Your task to perform on an android device: install app "Microsoft Authenticator" Image 0: 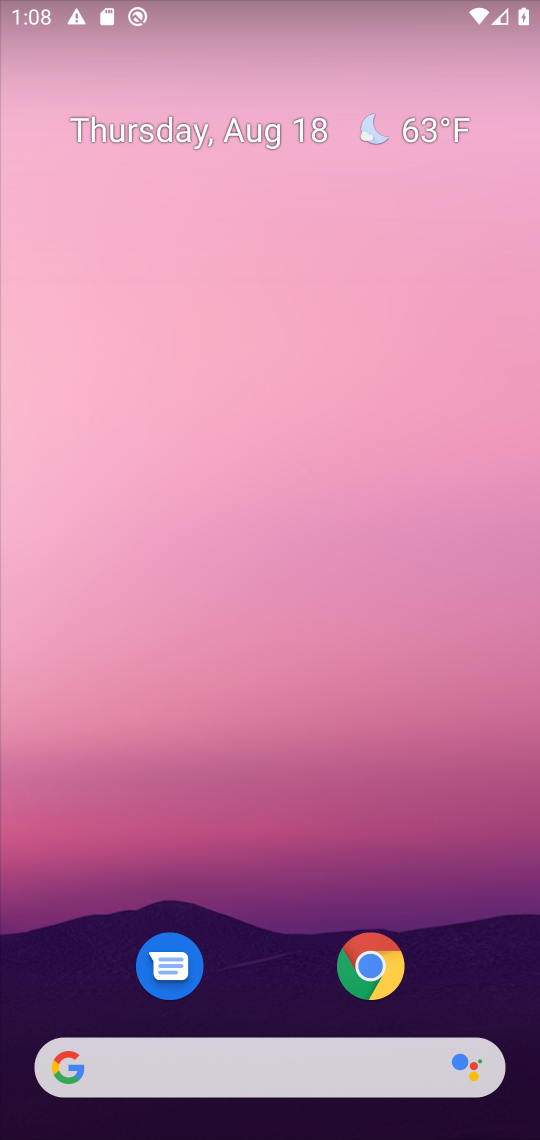
Step 0: drag from (265, 974) to (345, 474)
Your task to perform on an android device: install app "Microsoft Authenticator" Image 1: 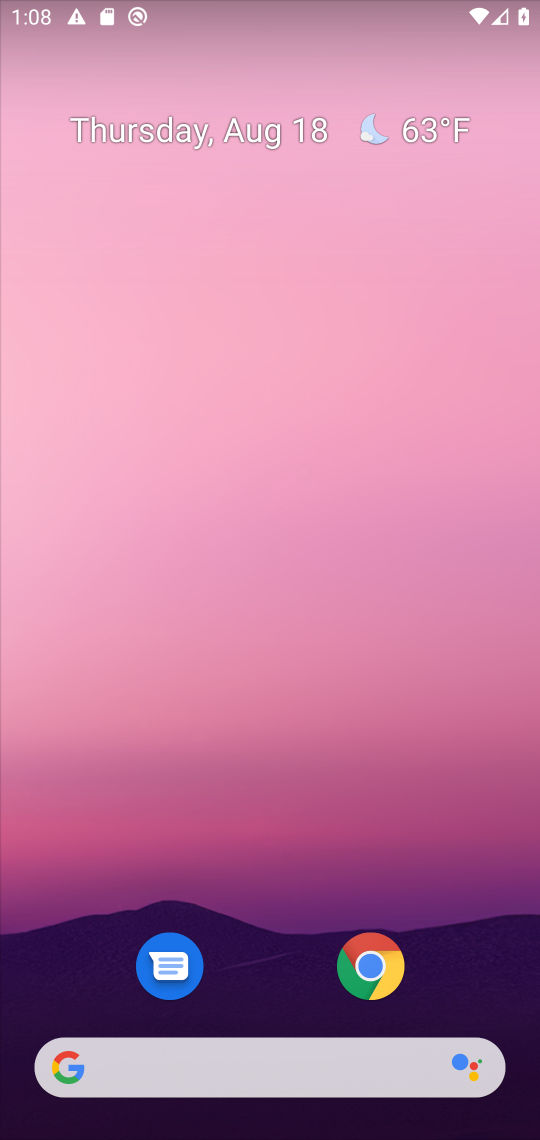
Step 1: drag from (294, 992) to (324, 121)
Your task to perform on an android device: install app "Microsoft Authenticator" Image 2: 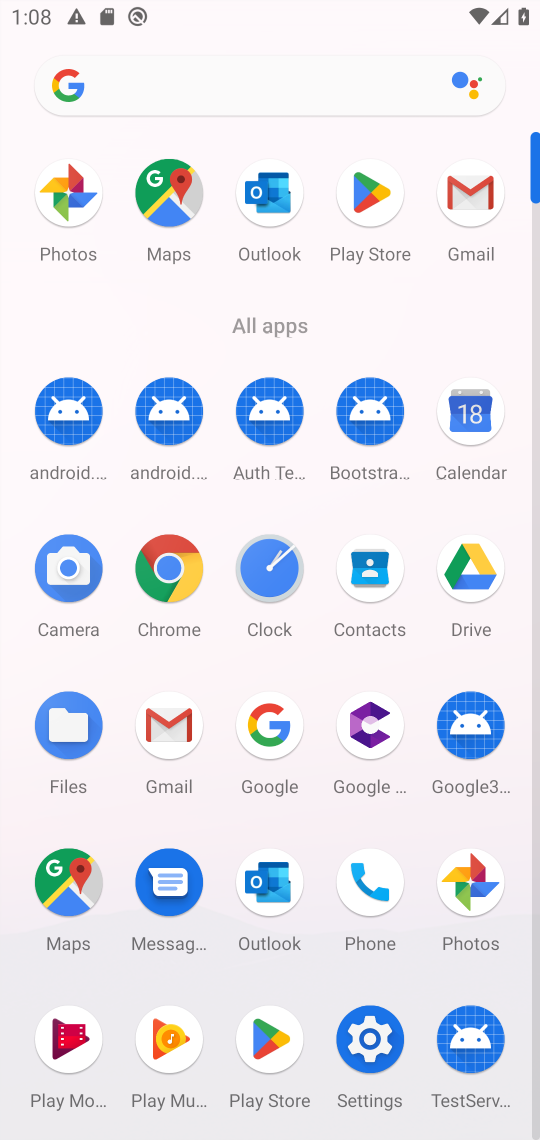
Step 2: click (360, 188)
Your task to perform on an android device: install app "Microsoft Authenticator" Image 3: 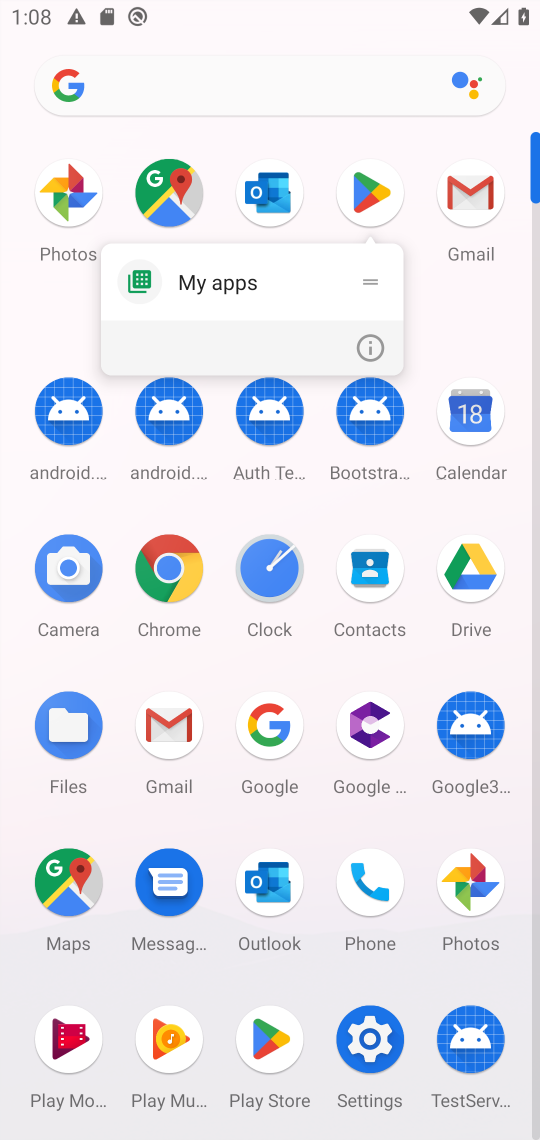
Step 3: click (377, 179)
Your task to perform on an android device: install app "Microsoft Authenticator" Image 4: 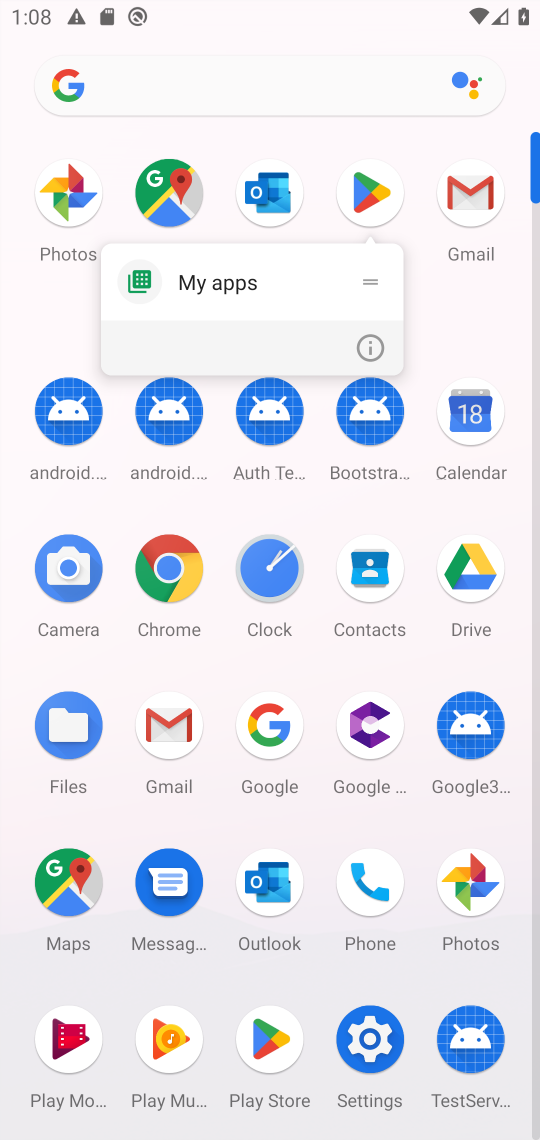
Step 4: click (368, 178)
Your task to perform on an android device: install app "Microsoft Authenticator" Image 5: 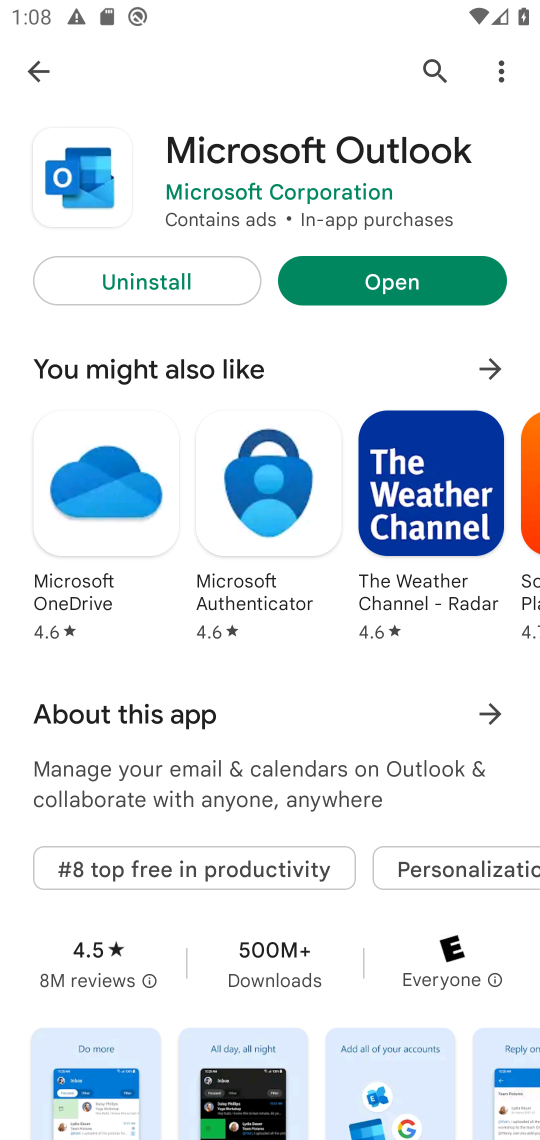
Step 5: click (416, 59)
Your task to perform on an android device: install app "Microsoft Authenticator" Image 6: 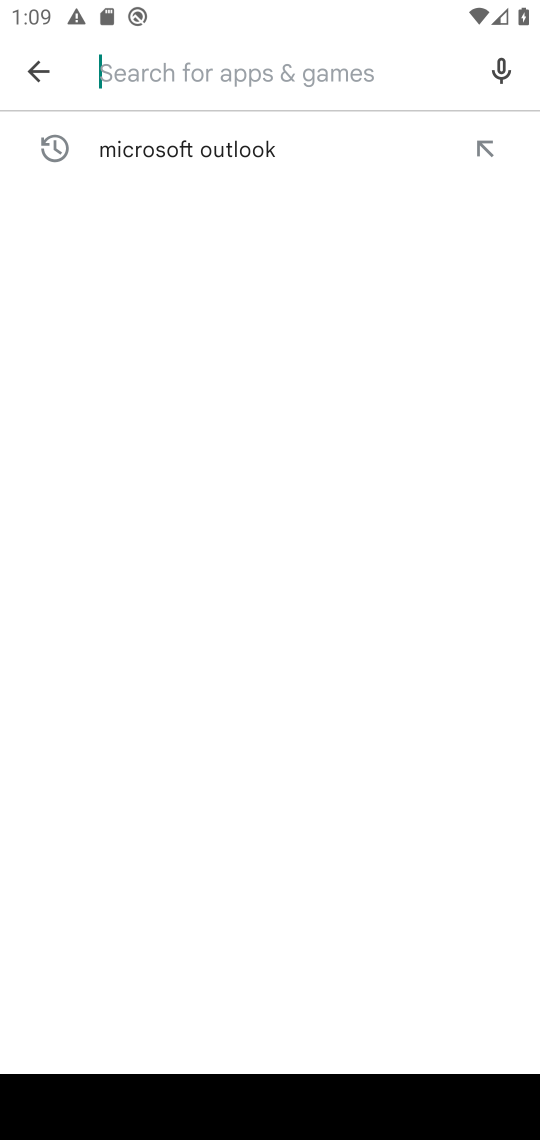
Step 6: type "Microsoft Authenticator"
Your task to perform on an android device: install app "Microsoft Authenticator" Image 7: 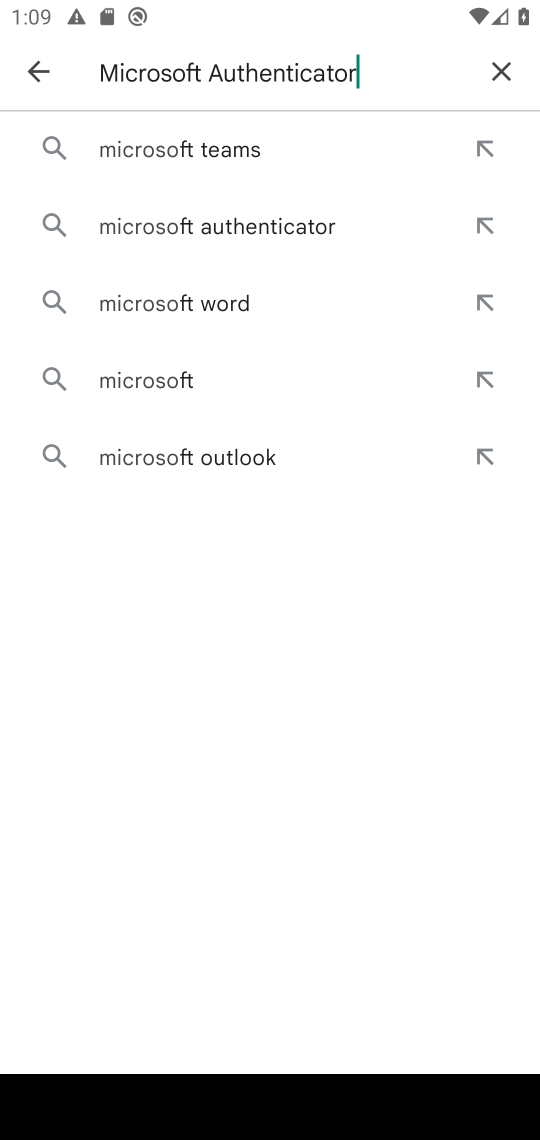
Step 7: type ""
Your task to perform on an android device: install app "Microsoft Authenticator" Image 8: 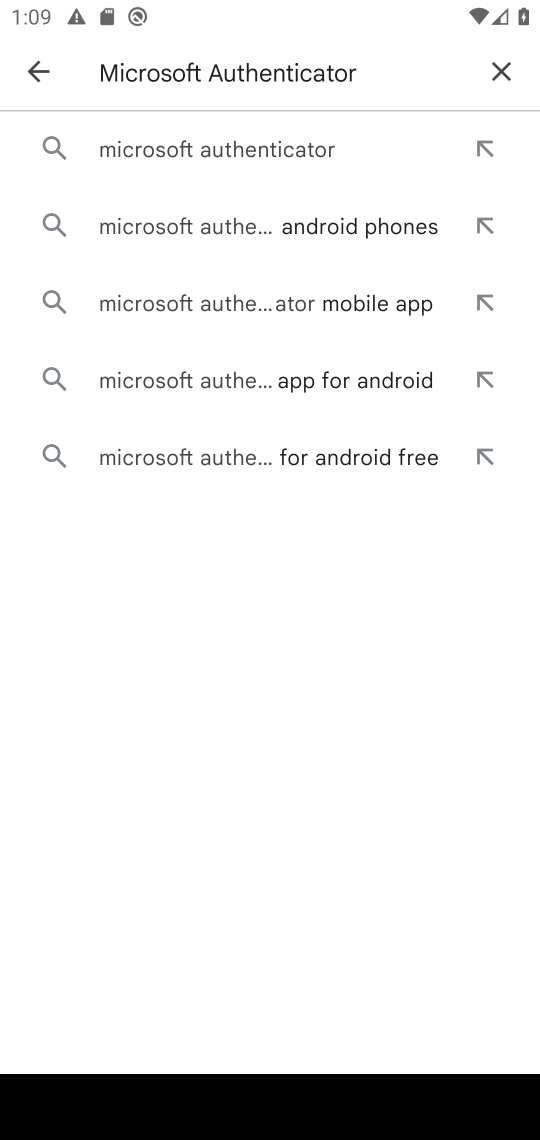
Step 8: click (207, 160)
Your task to perform on an android device: install app "Microsoft Authenticator" Image 9: 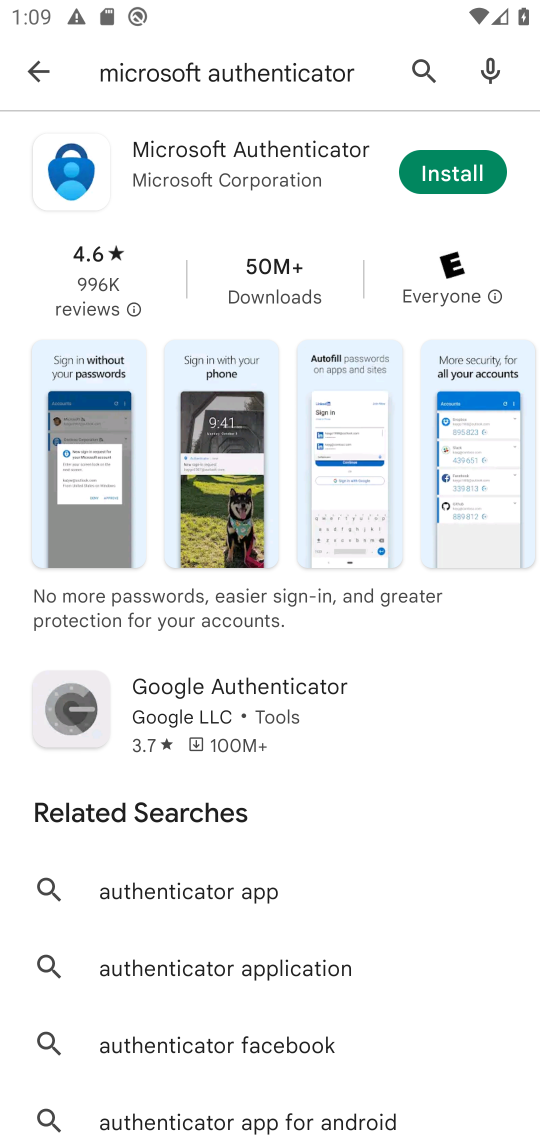
Step 9: click (452, 173)
Your task to perform on an android device: install app "Microsoft Authenticator" Image 10: 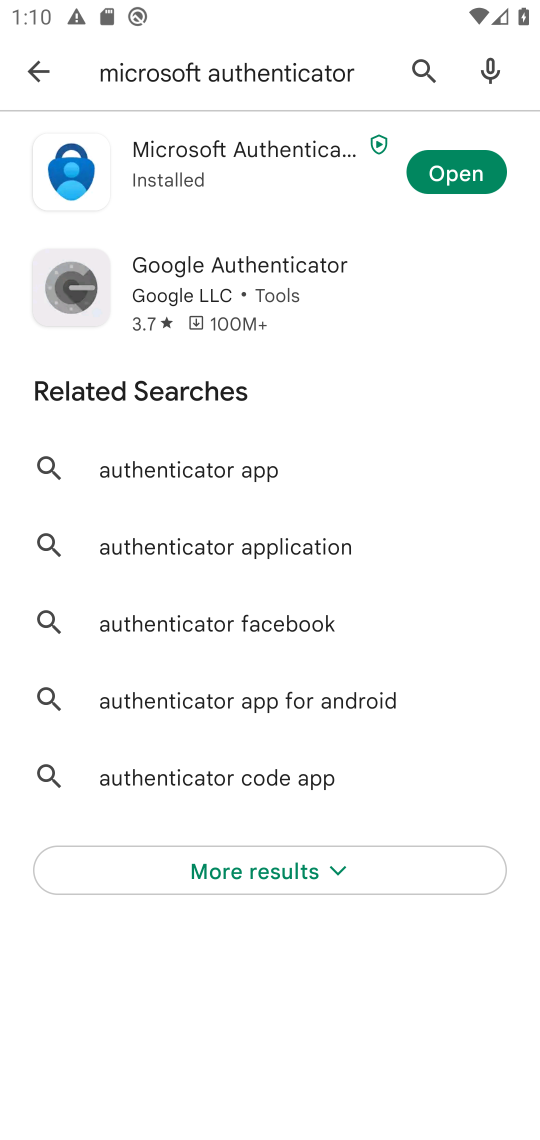
Step 10: click (453, 168)
Your task to perform on an android device: install app "Microsoft Authenticator" Image 11: 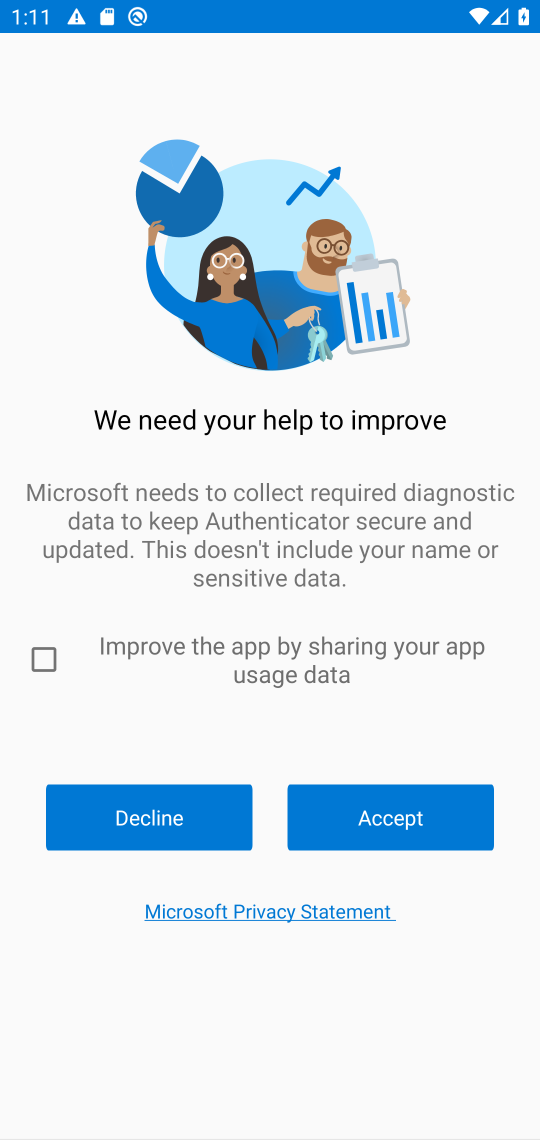
Step 11: click (36, 659)
Your task to perform on an android device: install app "Microsoft Authenticator" Image 12: 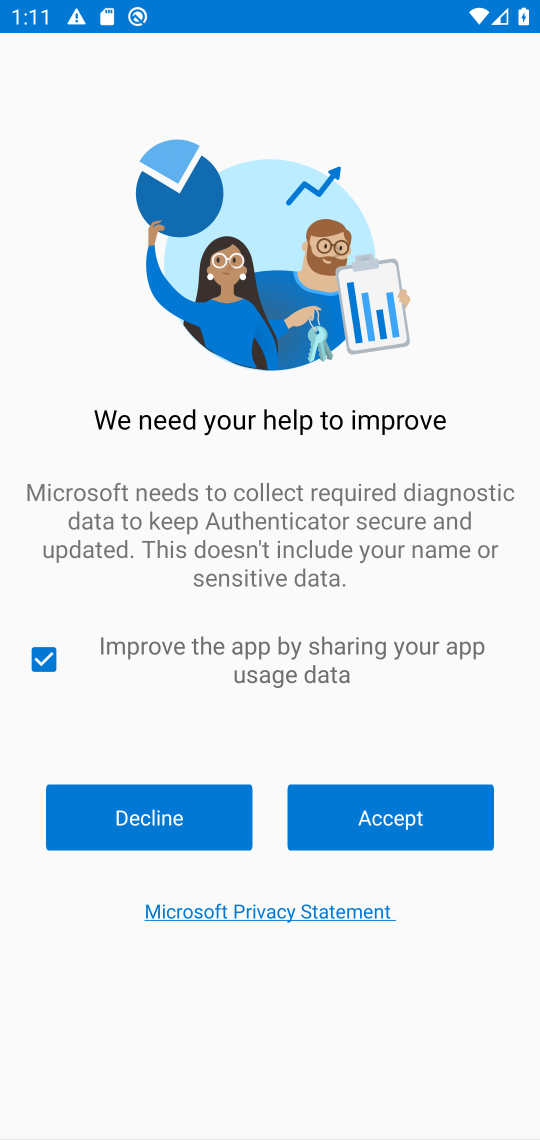
Step 12: click (404, 826)
Your task to perform on an android device: install app "Microsoft Authenticator" Image 13: 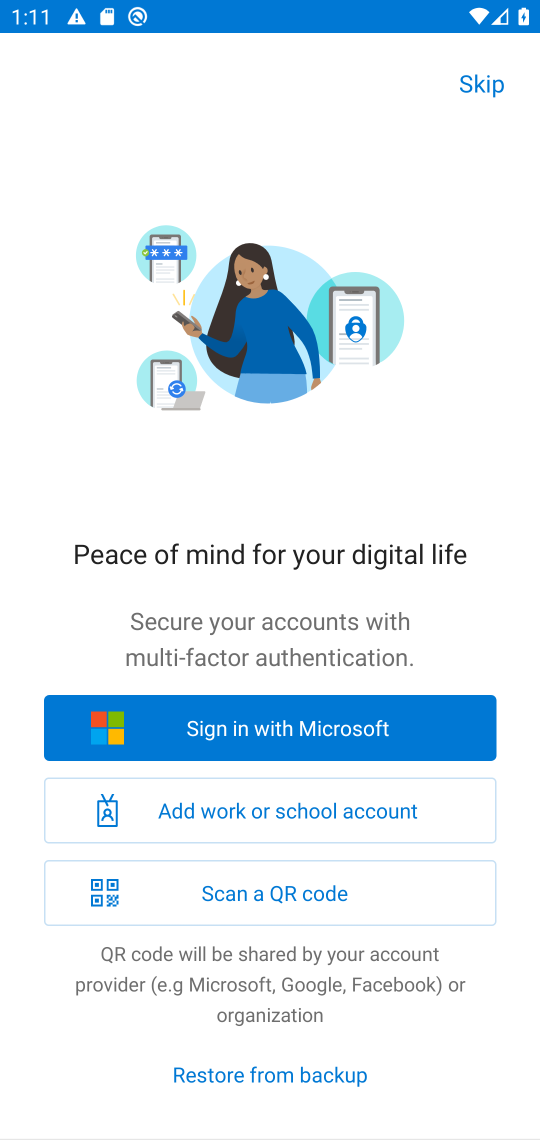
Step 13: task complete